Your task to perform on an android device: change keyboard looks Image 0: 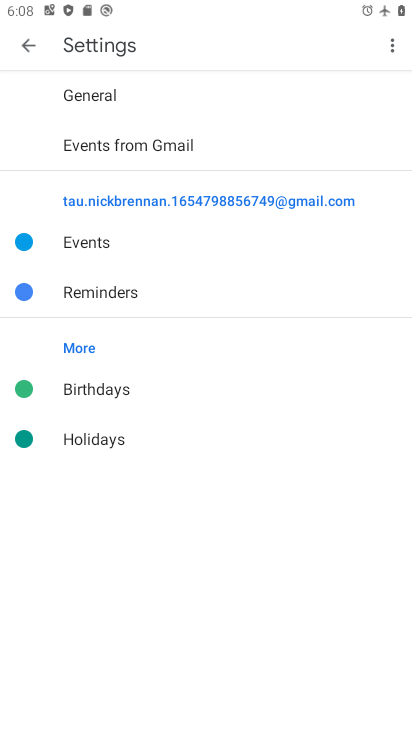
Step 0: press home button
Your task to perform on an android device: change keyboard looks Image 1: 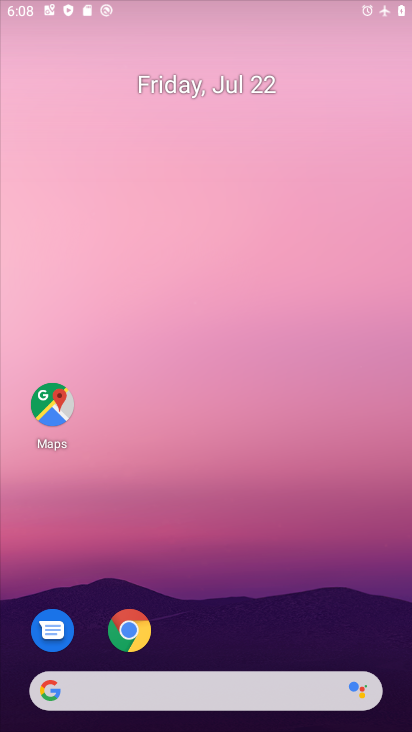
Step 1: drag from (233, 703) to (240, 4)
Your task to perform on an android device: change keyboard looks Image 2: 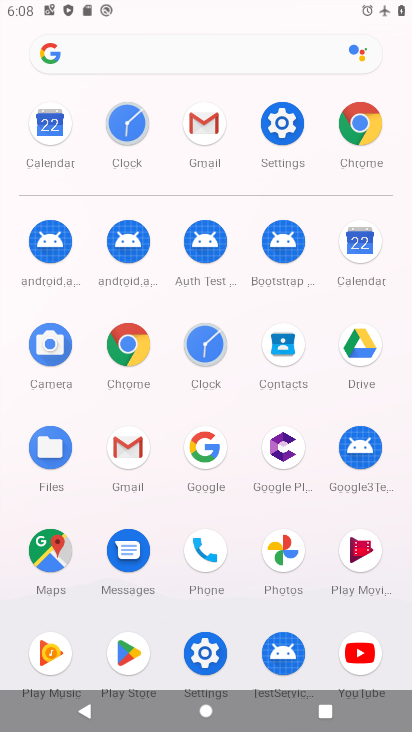
Step 2: click (286, 107)
Your task to perform on an android device: change keyboard looks Image 3: 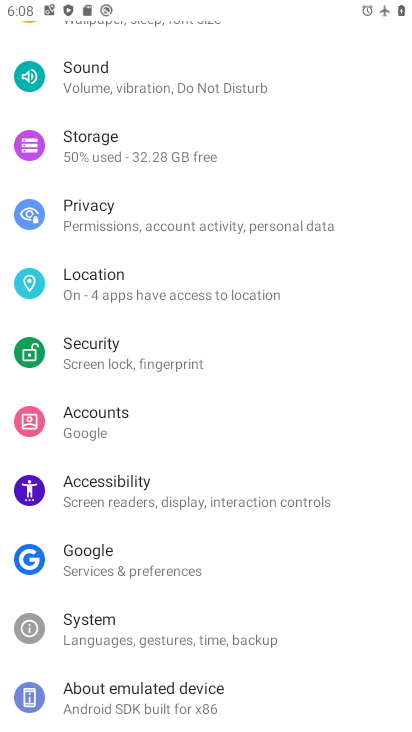
Step 3: click (145, 640)
Your task to perform on an android device: change keyboard looks Image 4: 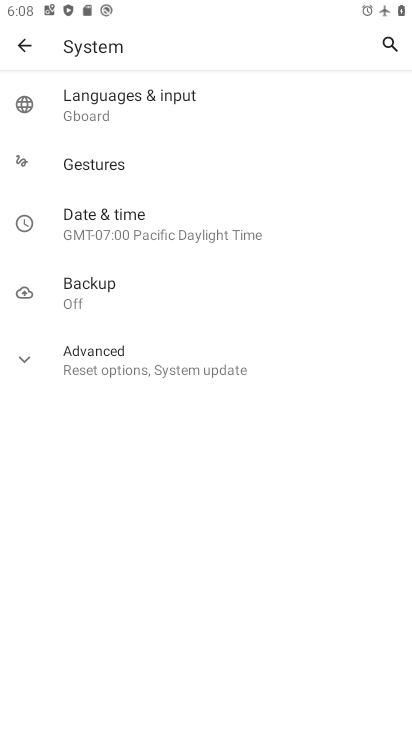
Step 4: click (143, 101)
Your task to perform on an android device: change keyboard looks Image 5: 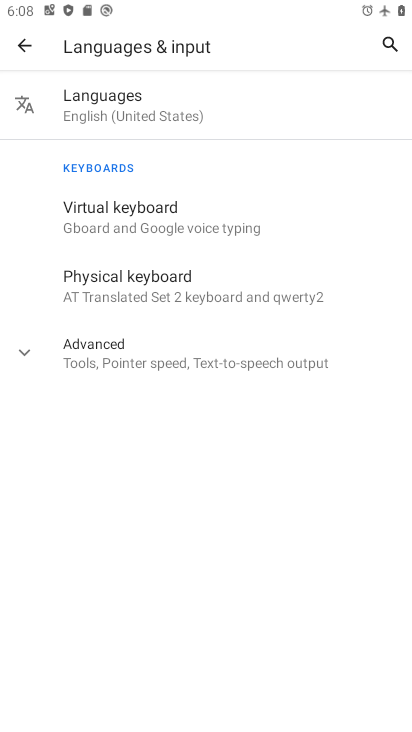
Step 5: click (95, 222)
Your task to perform on an android device: change keyboard looks Image 6: 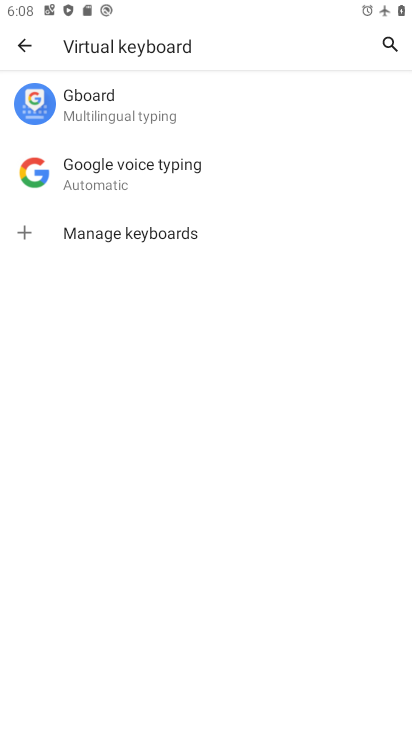
Step 6: click (163, 116)
Your task to perform on an android device: change keyboard looks Image 7: 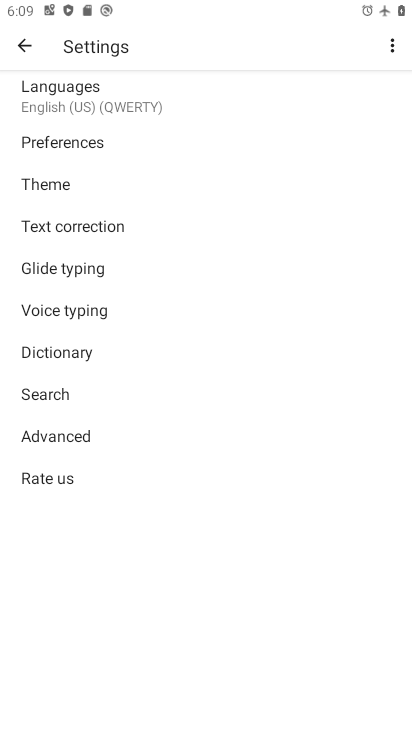
Step 7: click (70, 188)
Your task to perform on an android device: change keyboard looks Image 8: 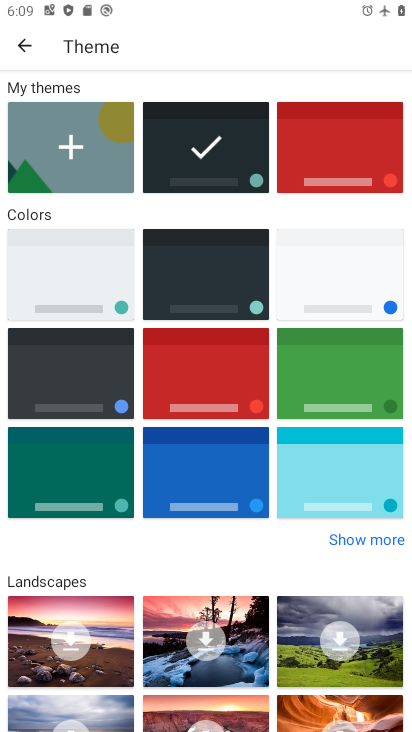
Step 8: click (181, 373)
Your task to perform on an android device: change keyboard looks Image 9: 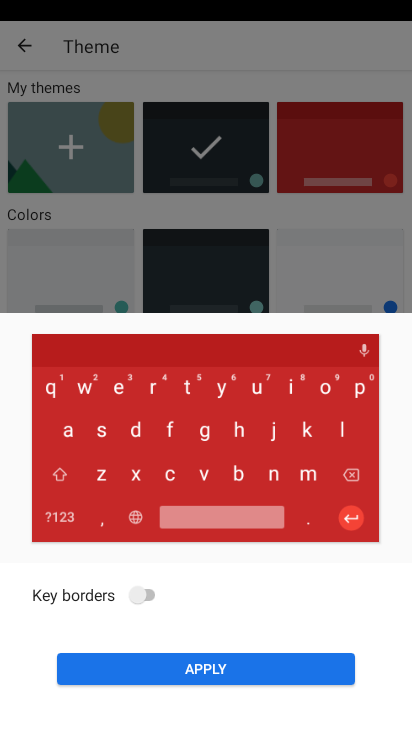
Step 9: click (179, 671)
Your task to perform on an android device: change keyboard looks Image 10: 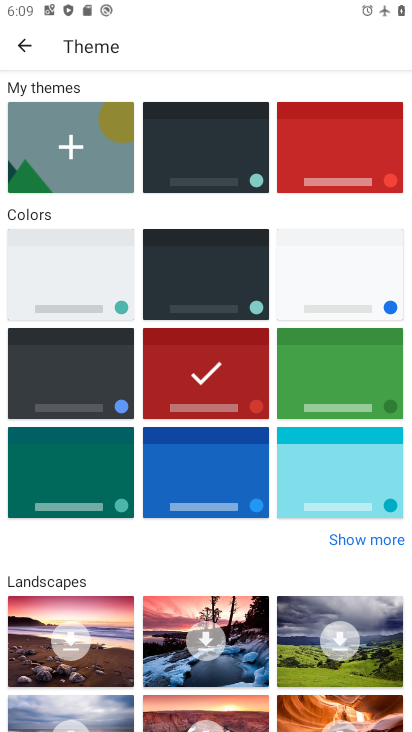
Step 10: click (193, 373)
Your task to perform on an android device: change keyboard looks Image 11: 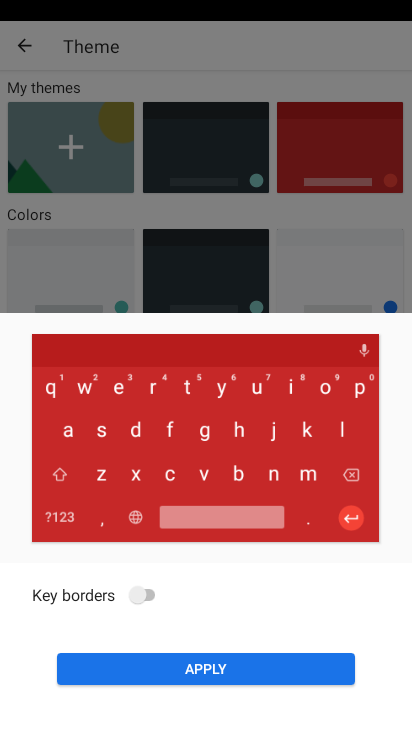
Step 11: click (254, 676)
Your task to perform on an android device: change keyboard looks Image 12: 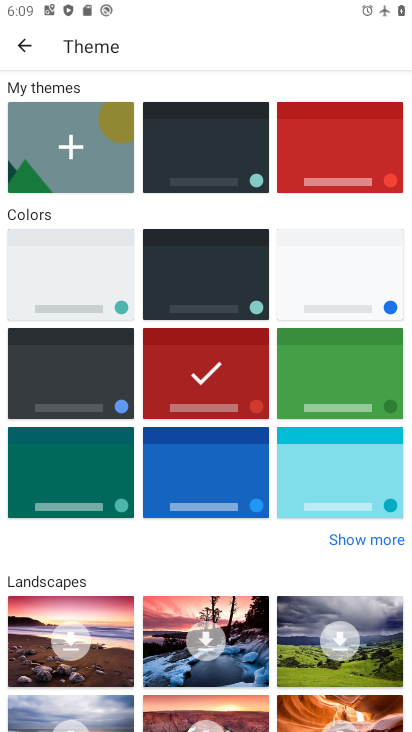
Step 12: task complete